Your task to perform on an android device: What's the weather? Image 0: 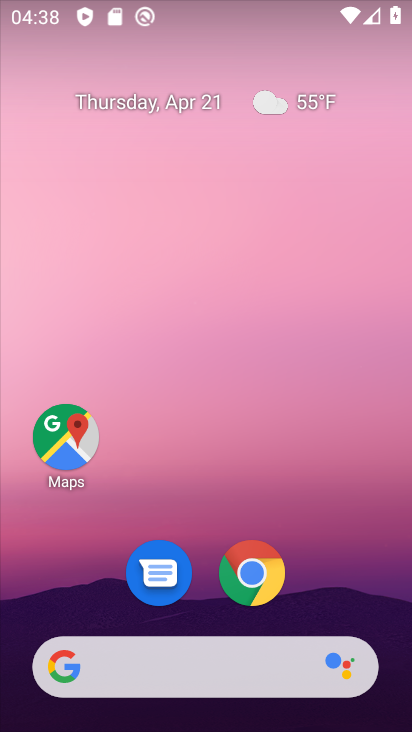
Step 0: click (306, 96)
Your task to perform on an android device: What's the weather? Image 1: 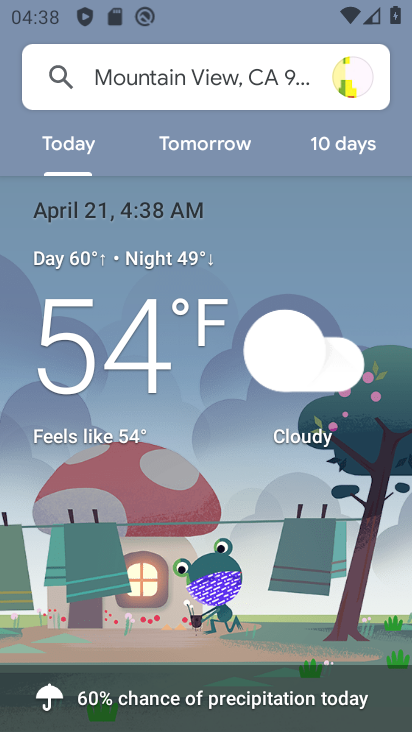
Step 1: task complete